Your task to perform on an android device: What's the weather? Image 0: 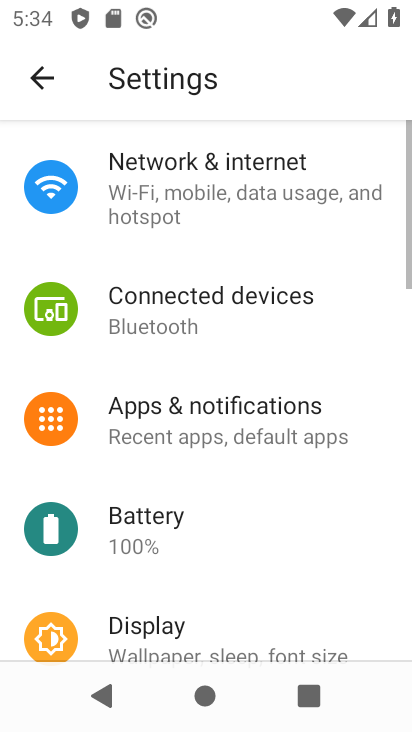
Step 0: press home button
Your task to perform on an android device: What's the weather? Image 1: 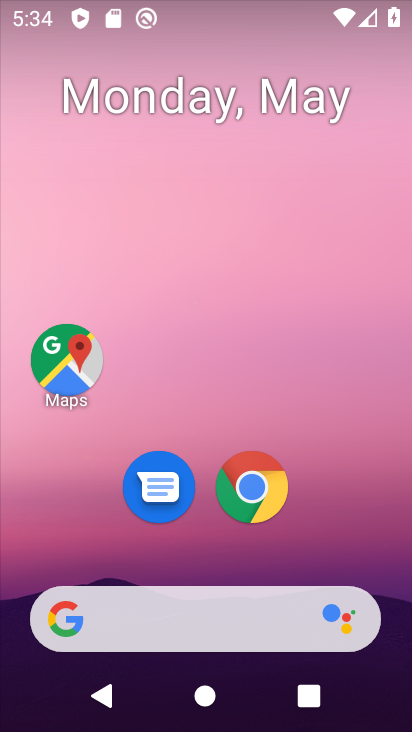
Step 1: drag from (209, 586) to (186, 110)
Your task to perform on an android device: What's the weather? Image 2: 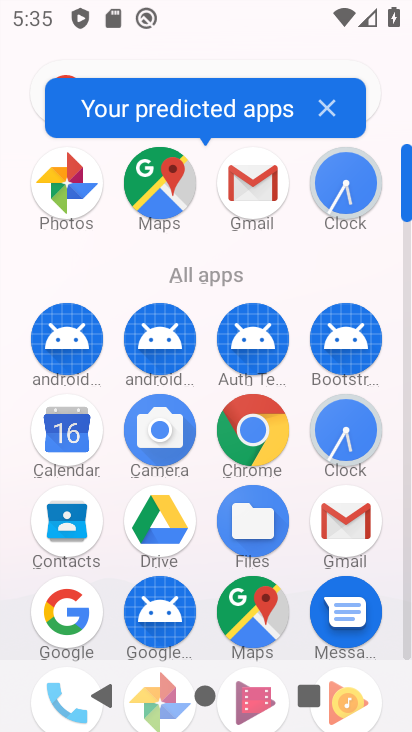
Step 2: drag from (218, 602) to (184, 299)
Your task to perform on an android device: What's the weather? Image 3: 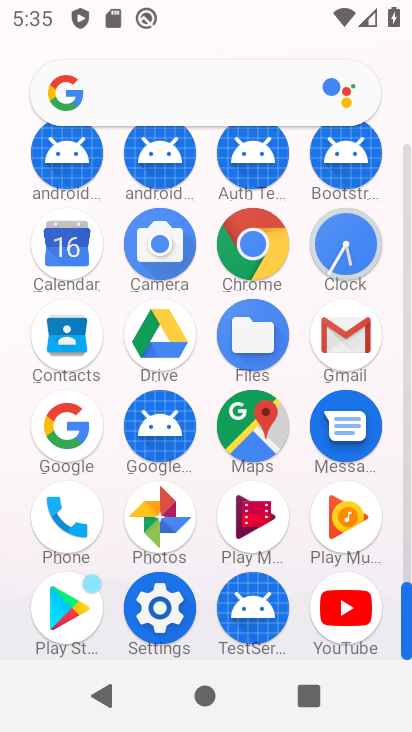
Step 3: click (63, 428)
Your task to perform on an android device: What's the weather? Image 4: 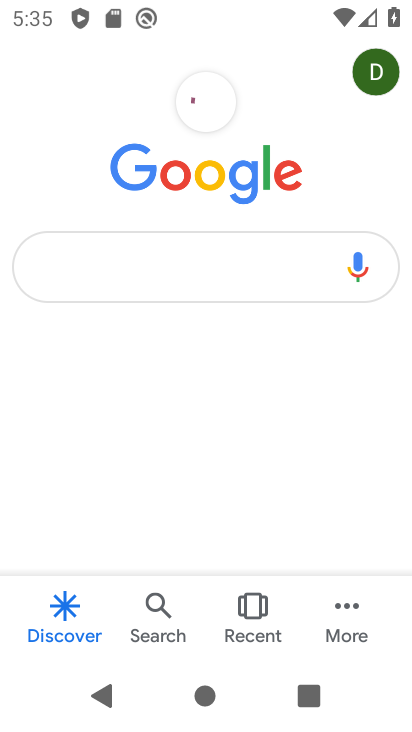
Step 4: click (127, 258)
Your task to perform on an android device: What's the weather? Image 5: 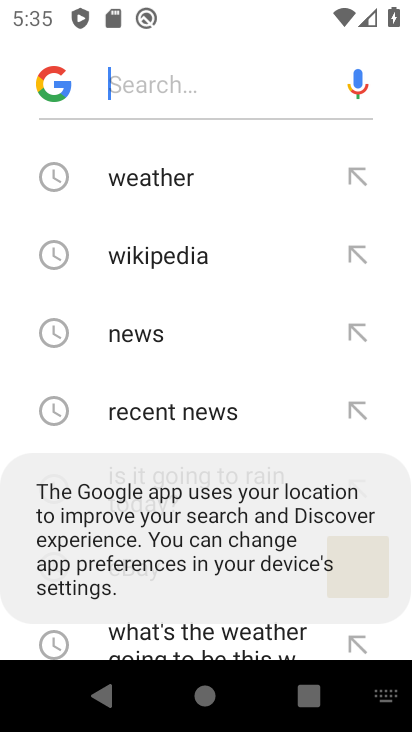
Step 5: click (120, 185)
Your task to perform on an android device: What's the weather? Image 6: 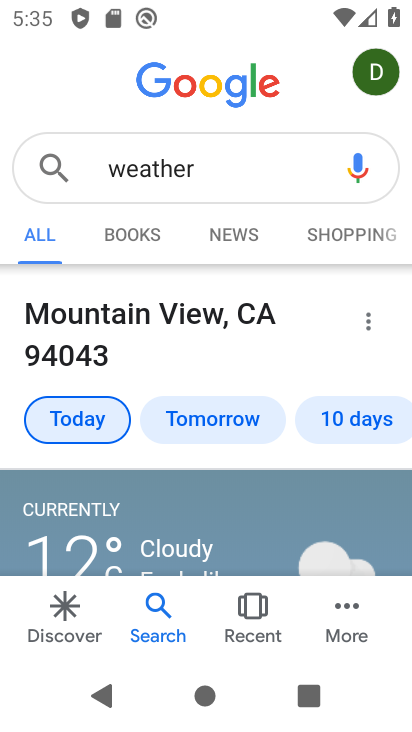
Step 6: task complete